Your task to perform on an android device: change timer sound Image 0: 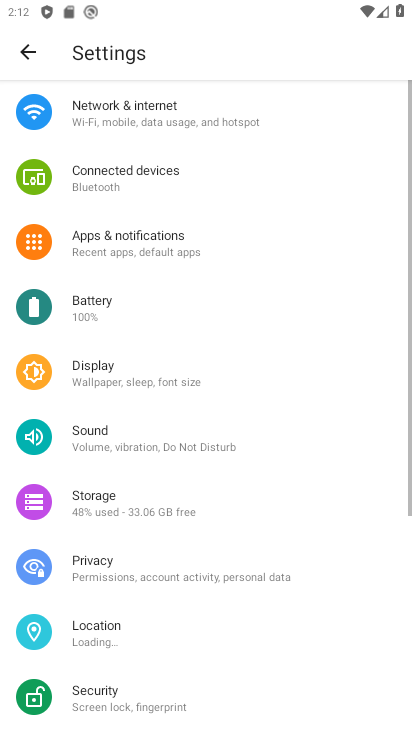
Step 0: press home button
Your task to perform on an android device: change timer sound Image 1: 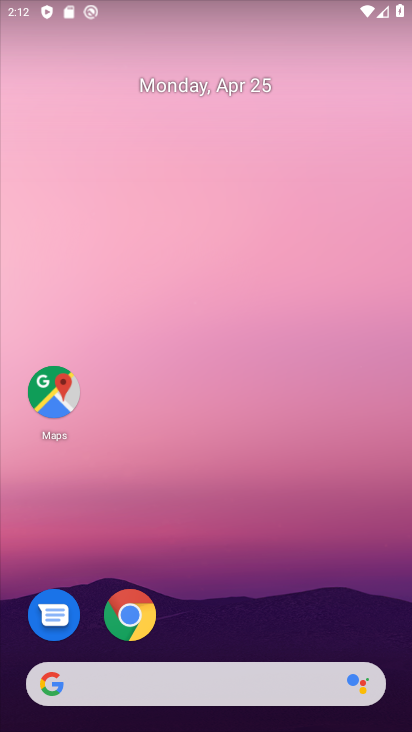
Step 1: drag from (205, 696) to (205, 173)
Your task to perform on an android device: change timer sound Image 2: 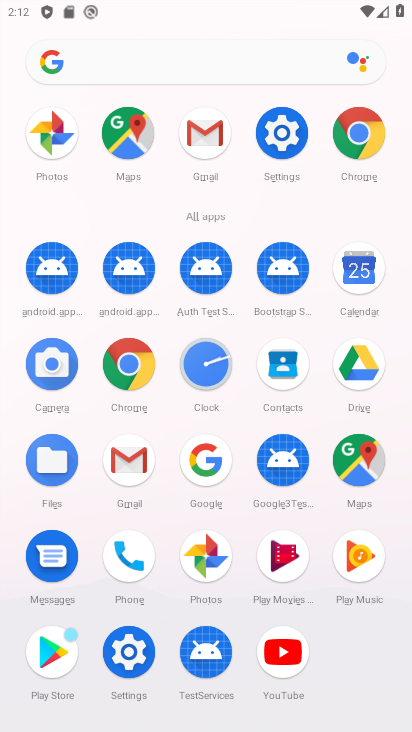
Step 2: click (204, 369)
Your task to perform on an android device: change timer sound Image 3: 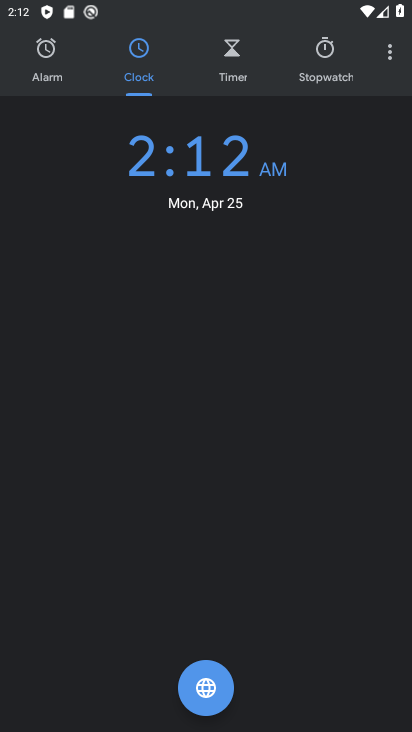
Step 3: click (389, 57)
Your task to perform on an android device: change timer sound Image 4: 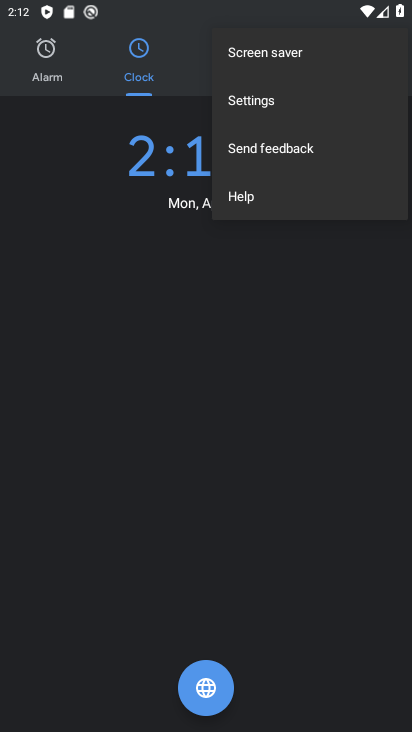
Step 4: click (235, 103)
Your task to perform on an android device: change timer sound Image 5: 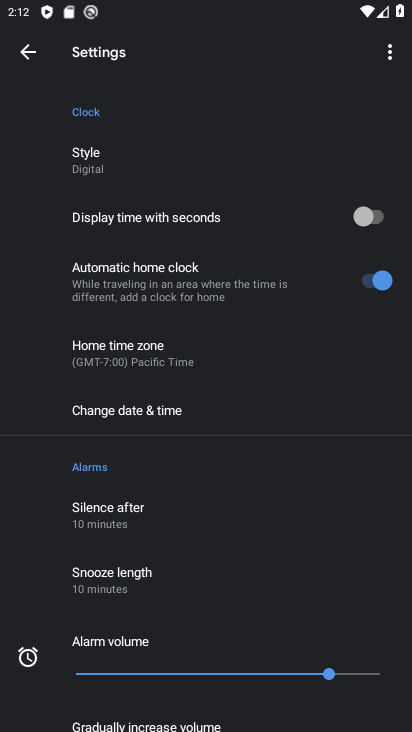
Step 5: drag from (171, 620) to (201, 261)
Your task to perform on an android device: change timer sound Image 6: 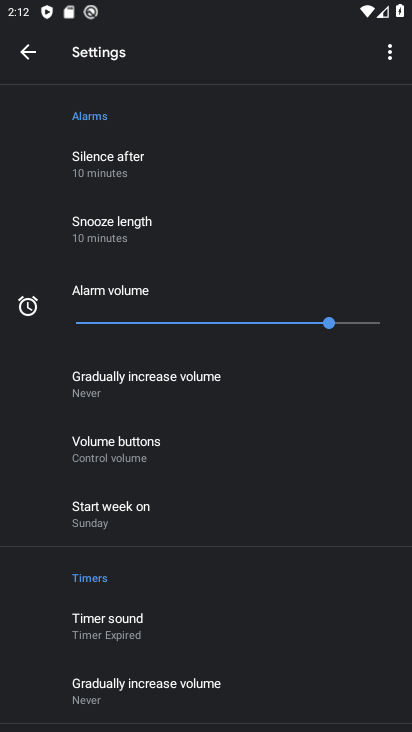
Step 6: click (130, 631)
Your task to perform on an android device: change timer sound Image 7: 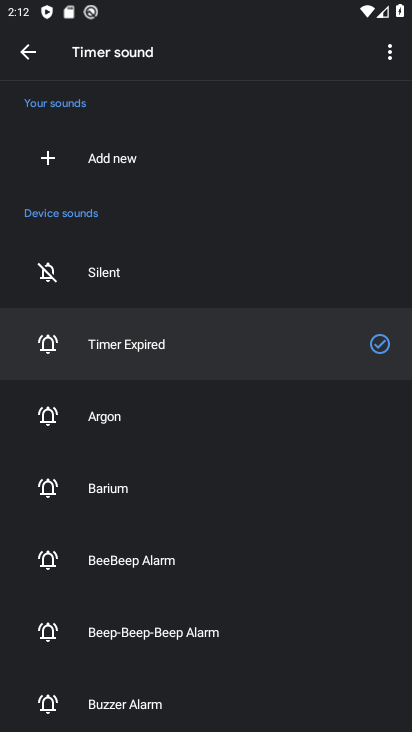
Step 7: click (118, 557)
Your task to perform on an android device: change timer sound Image 8: 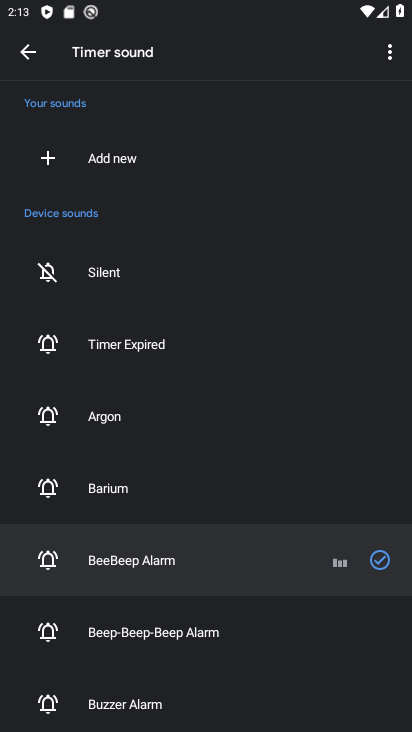
Step 8: task complete